Your task to perform on an android device: toggle airplane mode Image 0: 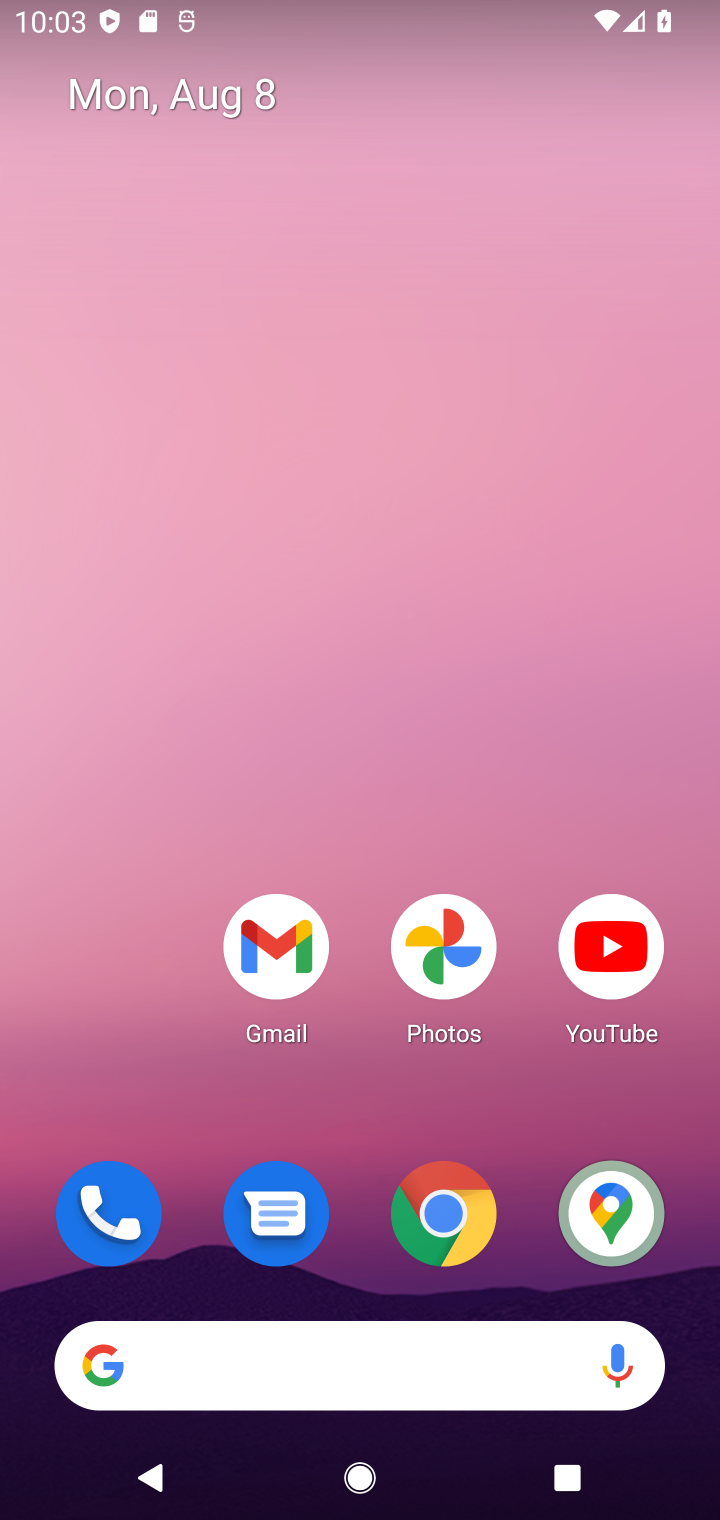
Step 0: drag from (316, 1135) to (367, 101)
Your task to perform on an android device: toggle airplane mode Image 1: 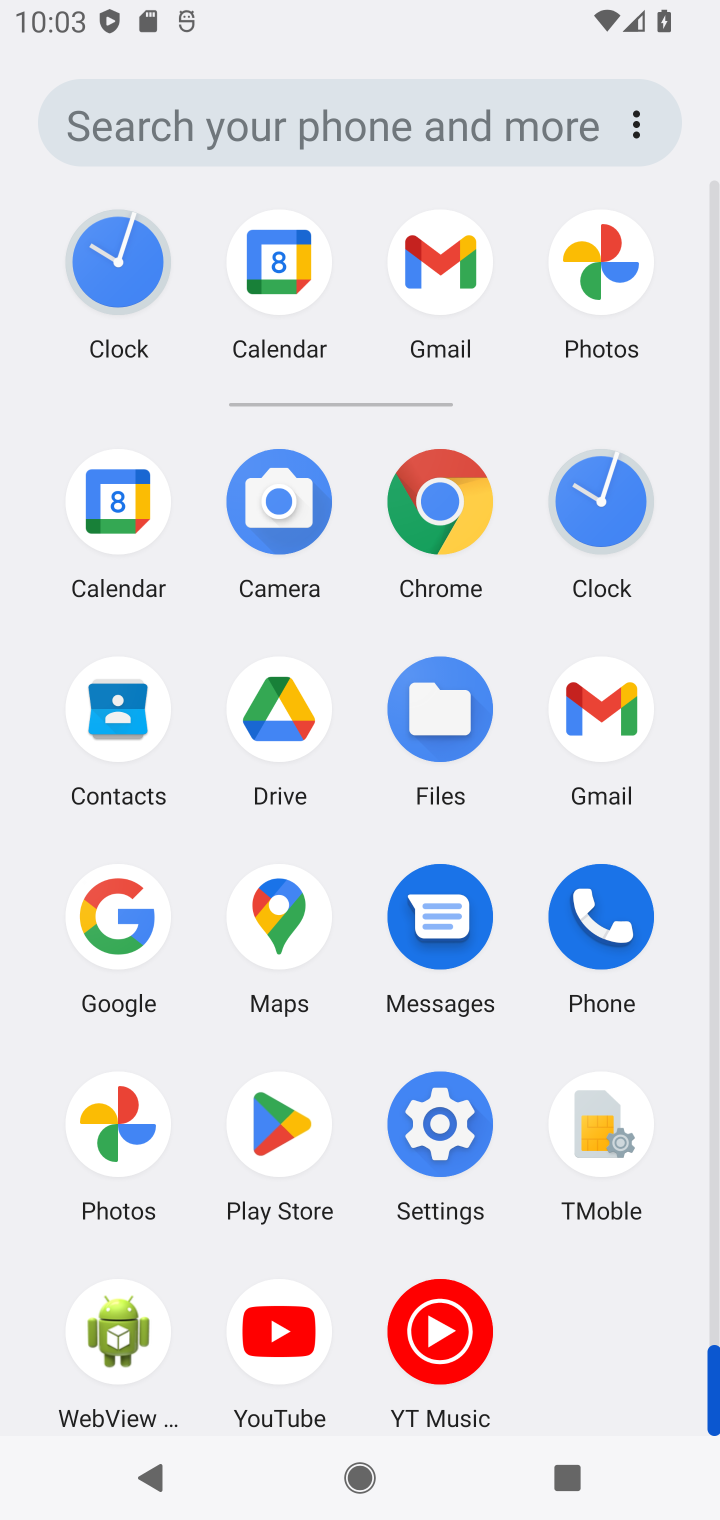
Step 1: click (410, 1173)
Your task to perform on an android device: toggle airplane mode Image 2: 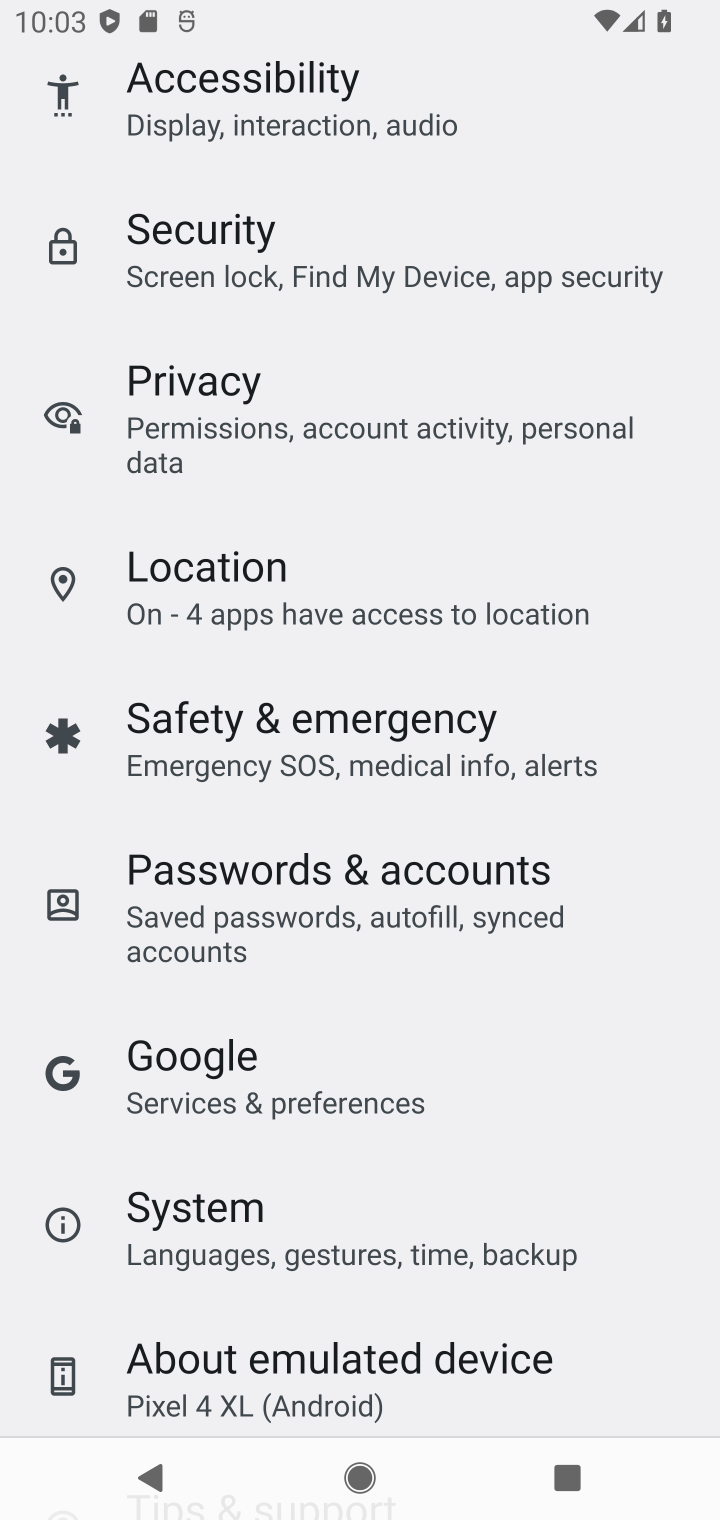
Step 2: drag from (367, 198) to (478, 1266)
Your task to perform on an android device: toggle airplane mode Image 3: 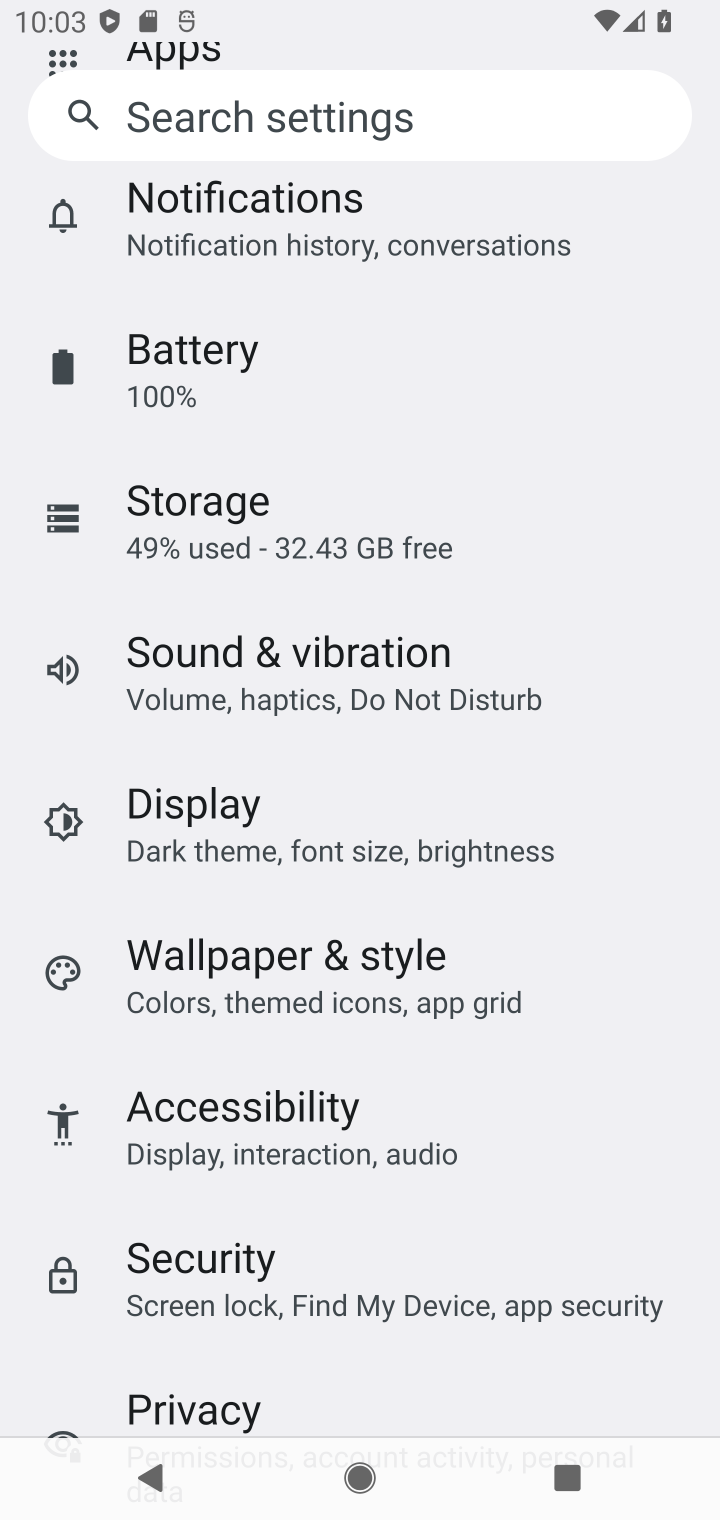
Step 3: drag from (309, 282) to (387, 1322)
Your task to perform on an android device: toggle airplane mode Image 4: 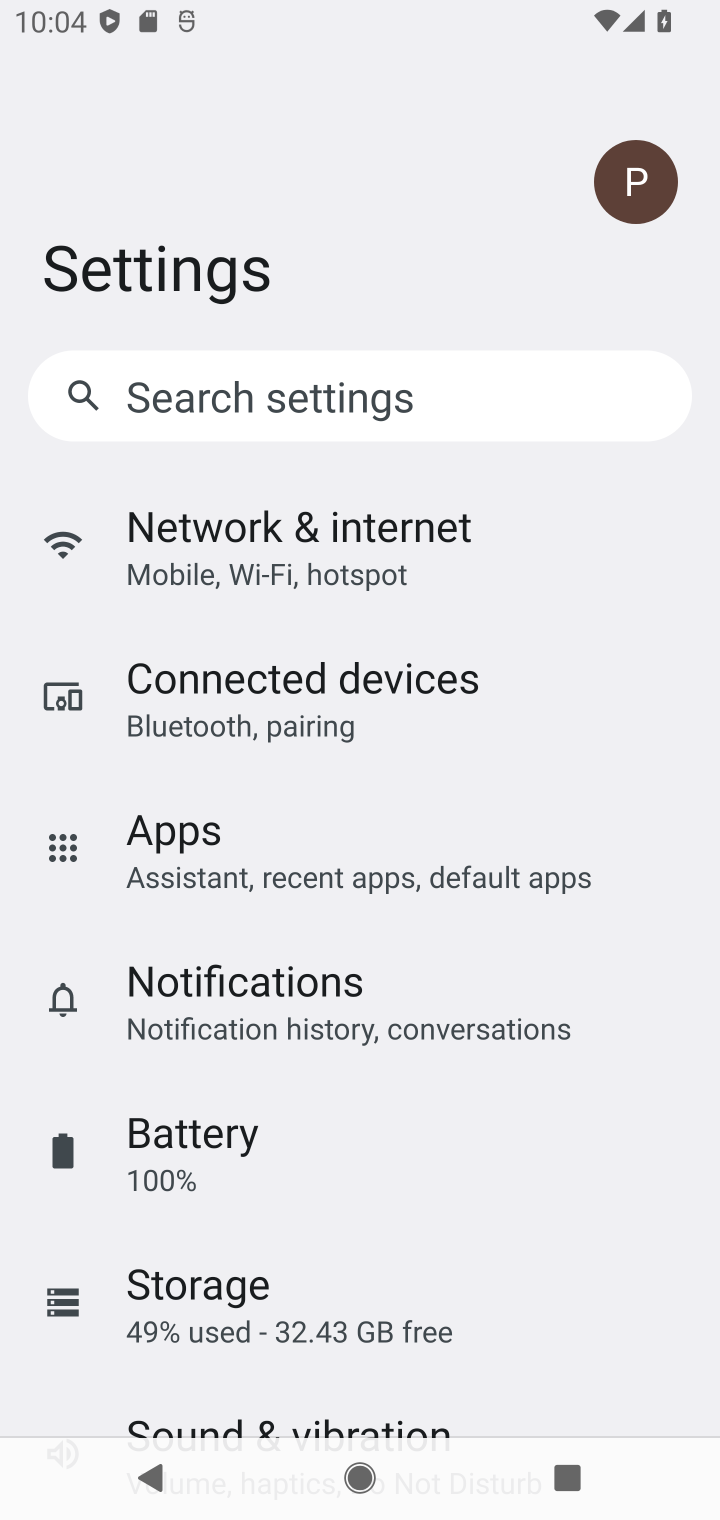
Step 4: click (336, 522)
Your task to perform on an android device: toggle airplane mode Image 5: 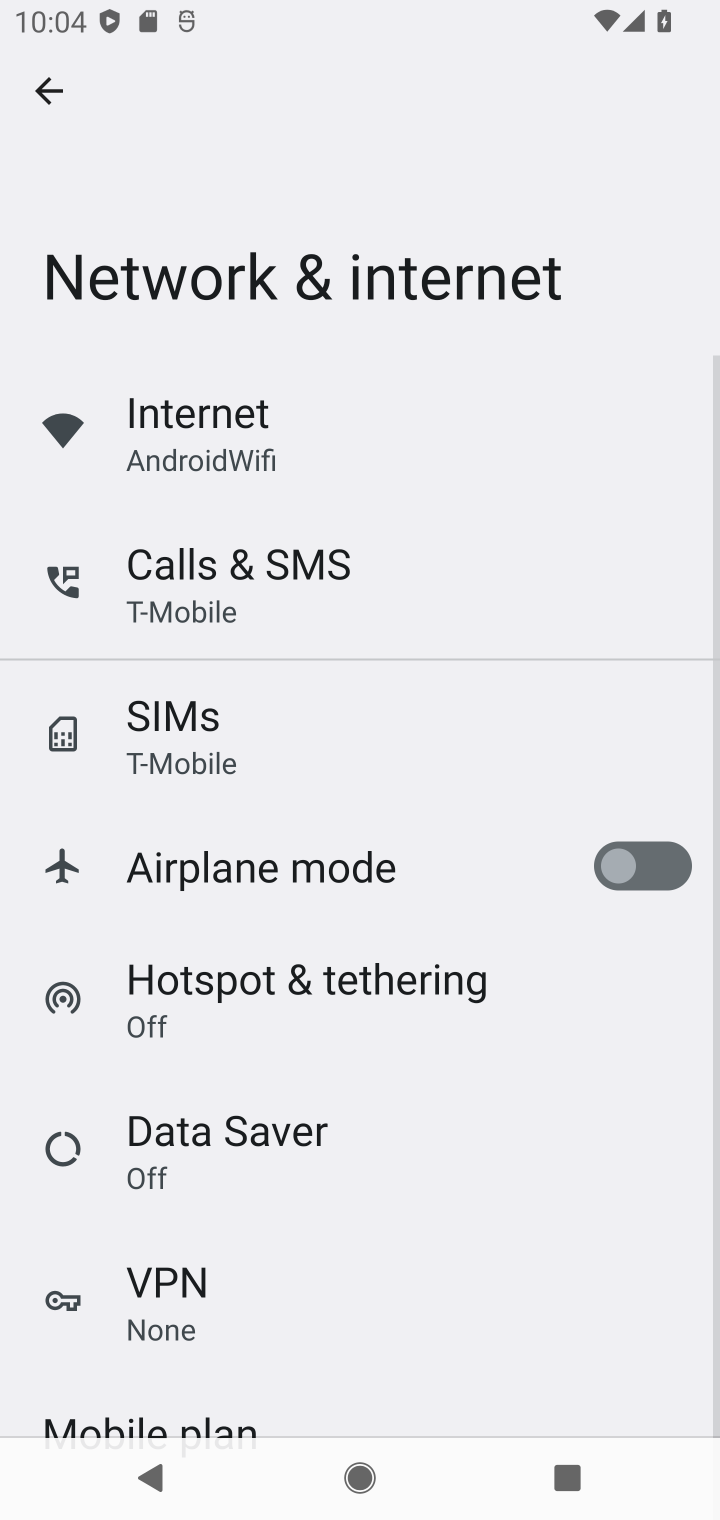
Step 5: click (619, 911)
Your task to perform on an android device: toggle airplane mode Image 6: 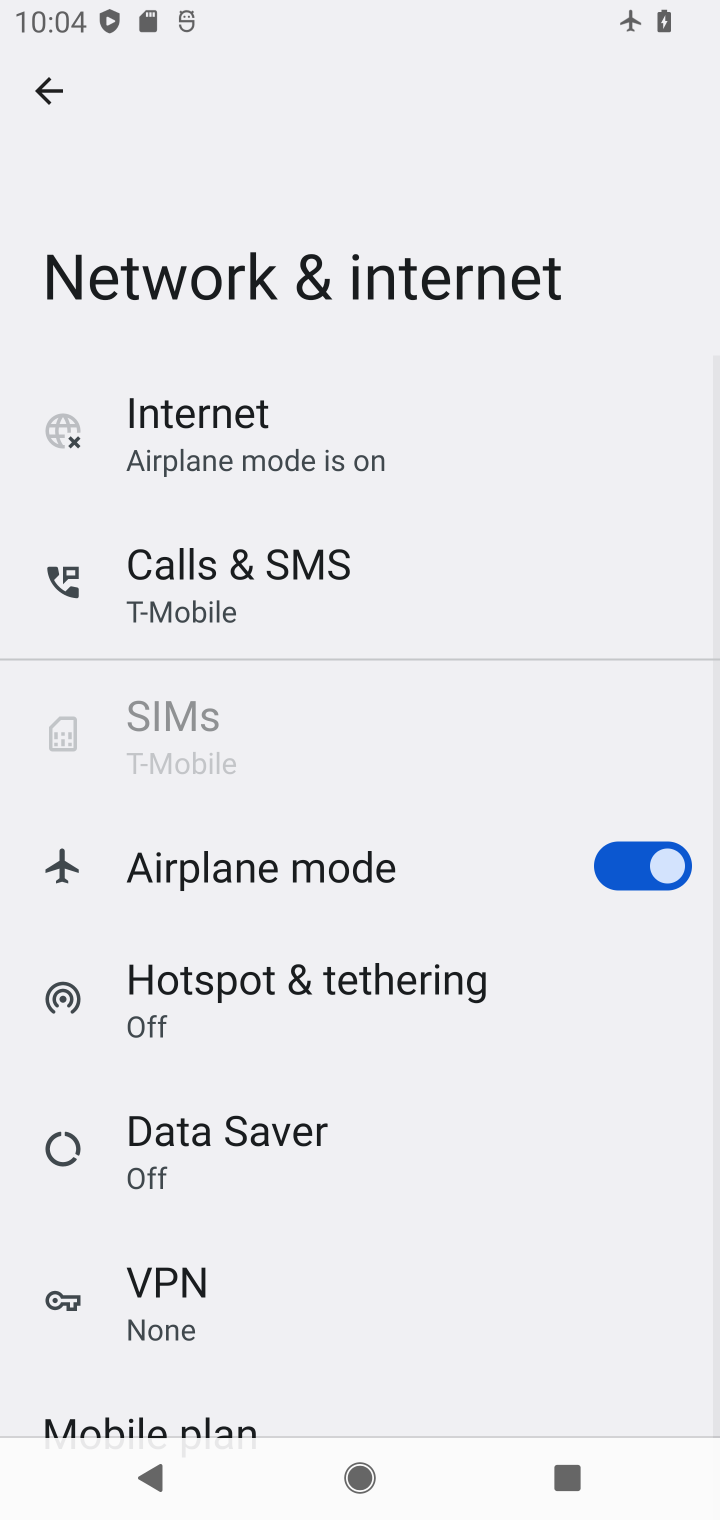
Step 6: task complete